Your task to perform on an android device: Go to Google maps Image 0: 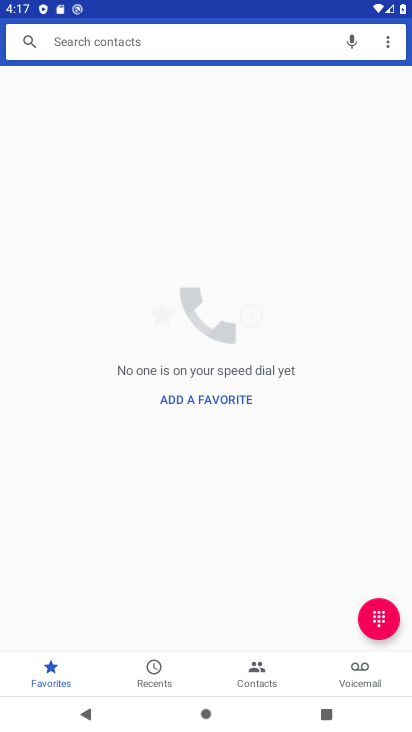
Step 0: press back button
Your task to perform on an android device: Go to Google maps Image 1: 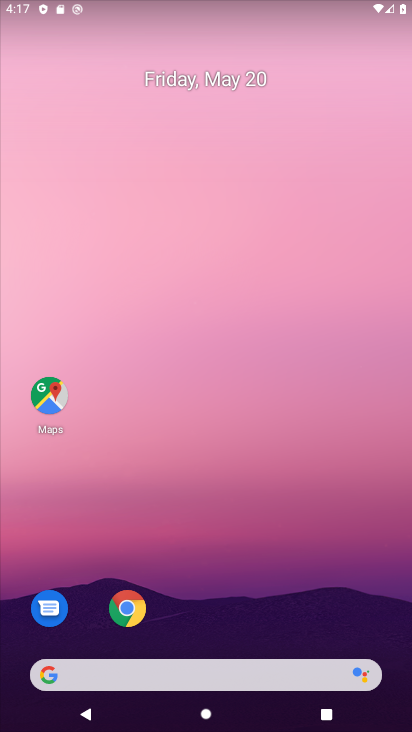
Step 1: drag from (211, 646) to (200, 138)
Your task to perform on an android device: Go to Google maps Image 2: 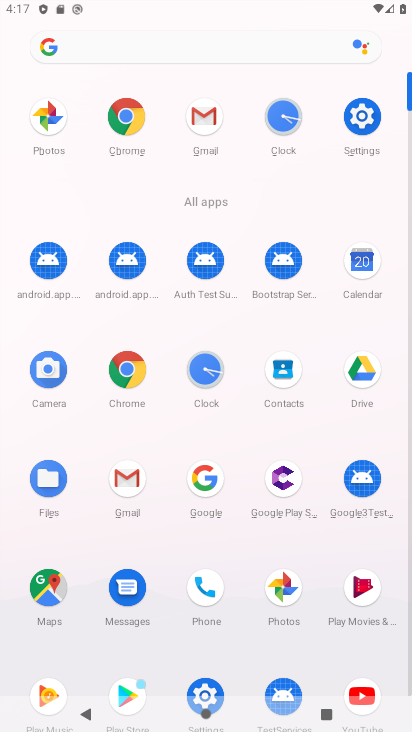
Step 2: click (54, 593)
Your task to perform on an android device: Go to Google maps Image 3: 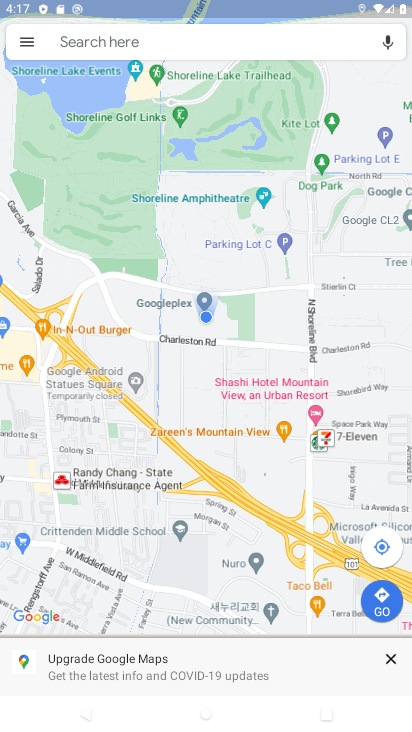
Step 3: task complete